Your task to perform on an android device: Search for Italian restaurants on Maps Image 0: 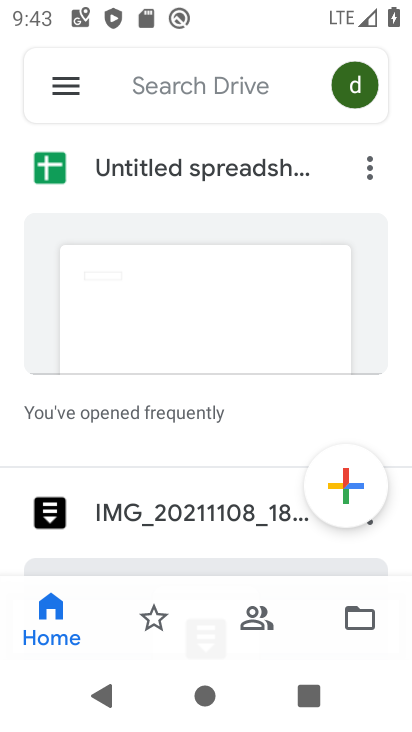
Step 0: press home button
Your task to perform on an android device: Search for Italian restaurants on Maps Image 1: 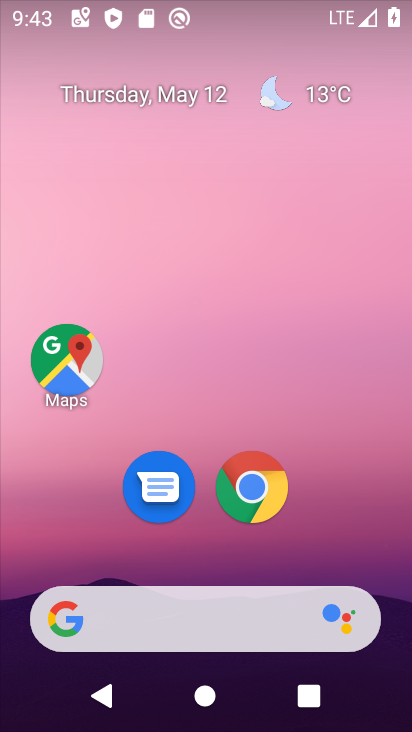
Step 1: click (71, 366)
Your task to perform on an android device: Search for Italian restaurants on Maps Image 2: 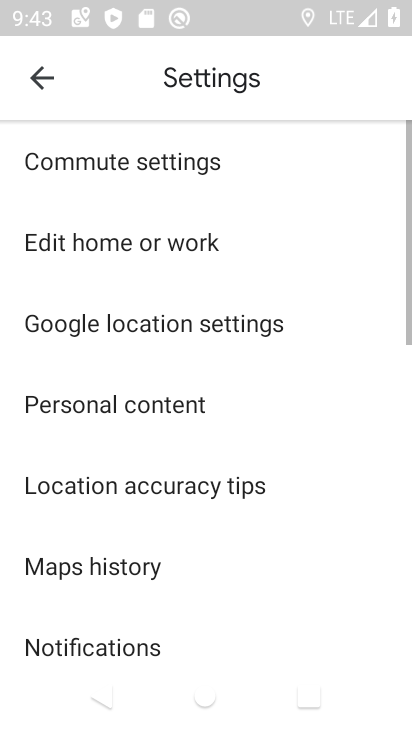
Step 2: click (43, 84)
Your task to perform on an android device: Search for Italian restaurants on Maps Image 3: 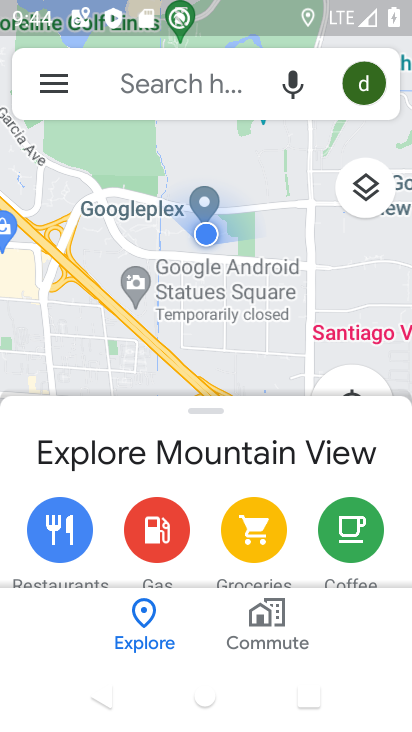
Step 3: click (148, 86)
Your task to perform on an android device: Search for Italian restaurants on Maps Image 4: 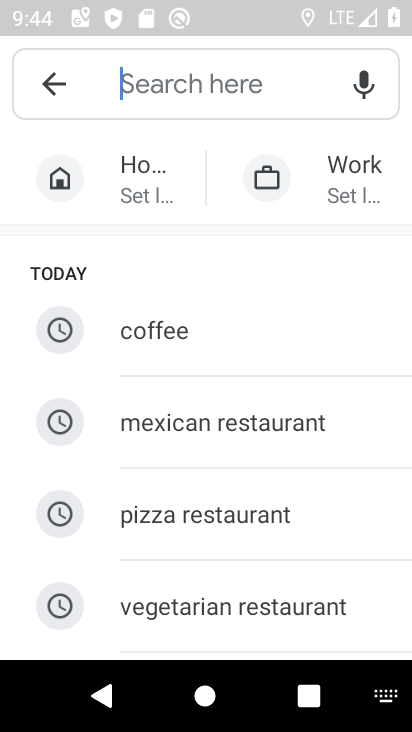
Step 4: type "italian restaurant "
Your task to perform on an android device: Search for Italian restaurants on Maps Image 5: 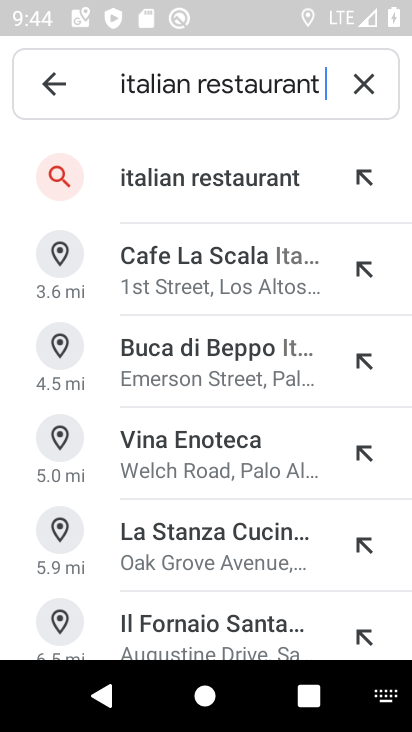
Step 5: click (177, 179)
Your task to perform on an android device: Search for Italian restaurants on Maps Image 6: 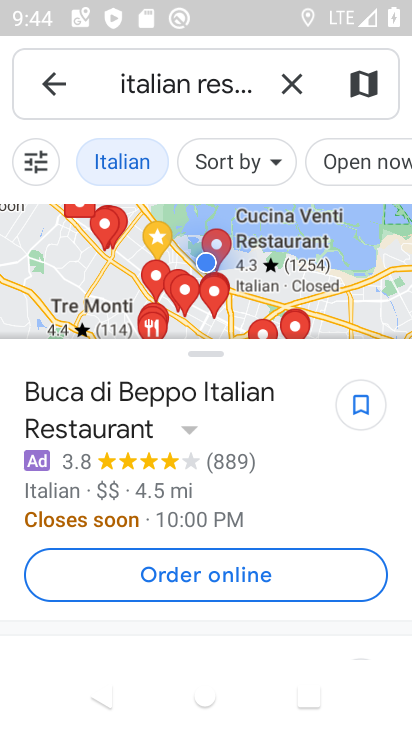
Step 6: task complete